Your task to perform on an android device: What's the weather? Image 0: 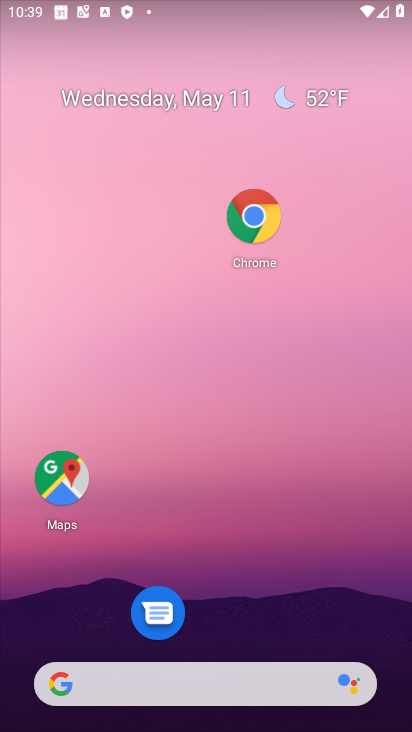
Step 0: click (167, 99)
Your task to perform on an android device: What's the weather? Image 1: 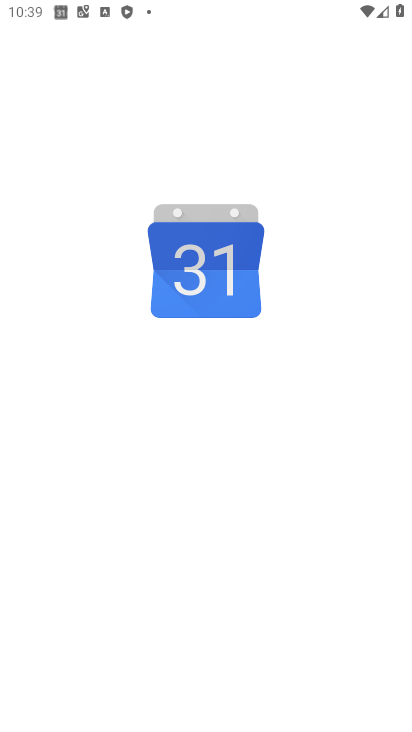
Step 1: click (346, 105)
Your task to perform on an android device: What's the weather? Image 2: 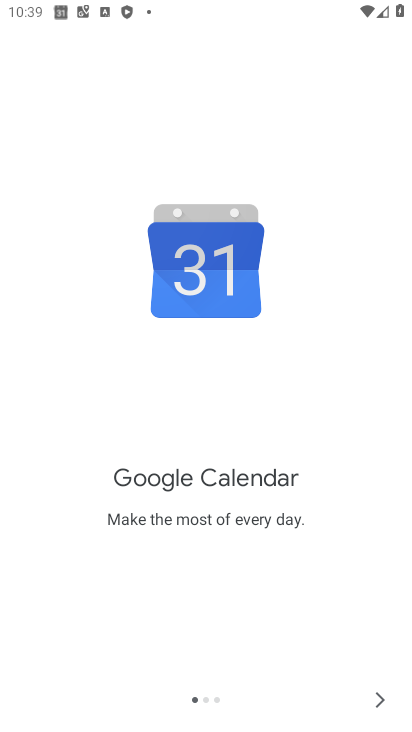
Step 2: press back button
Your task to perform on an android device: What's the weather? Image 3: 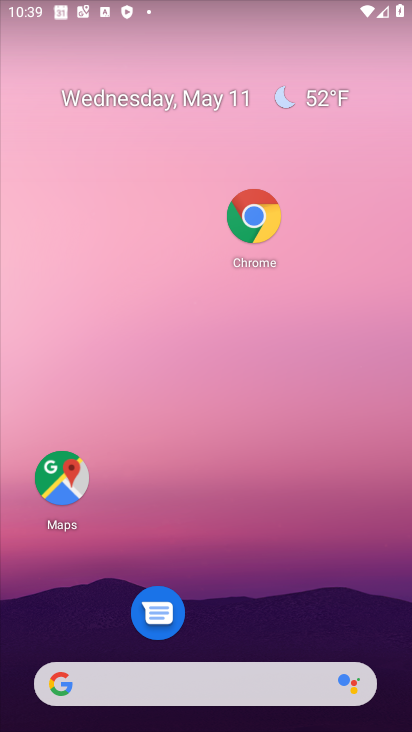
Step 3: click (346, 100)
Your task to perform on an android device: What's the weather? Image 4: 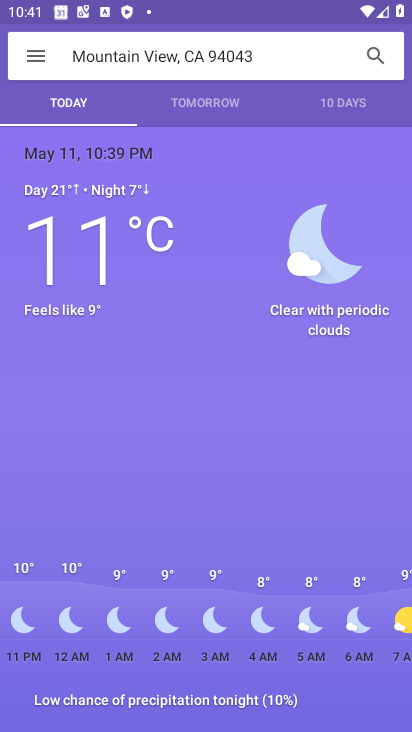
Step 4: task complete